Your task to perform on an android device: toggle improve location accuracy Image 0: 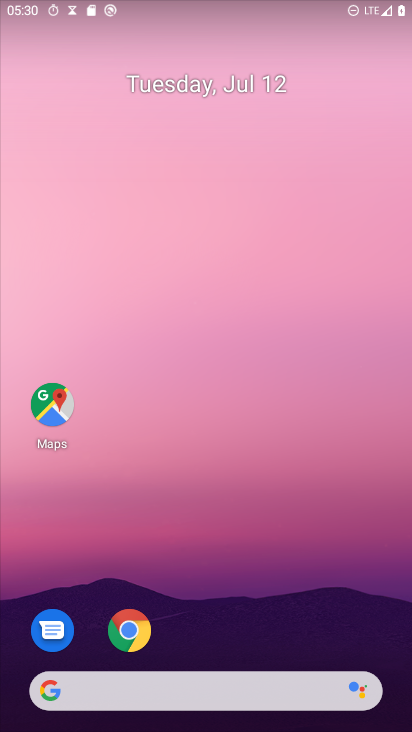
Step 0: drag from (305, 639) to (306, 52)
Your task to perform on an android device: toggle improve location accuracy Image 1: 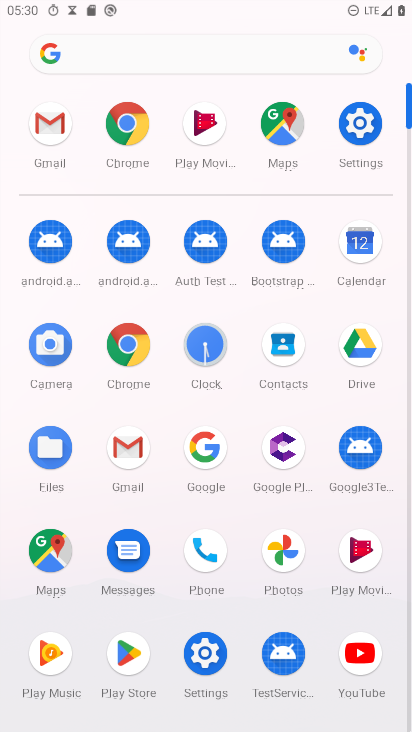
Step 1: click (374, 122)
Your task to perform on an android device: toggle improve location accuracy Image 2: 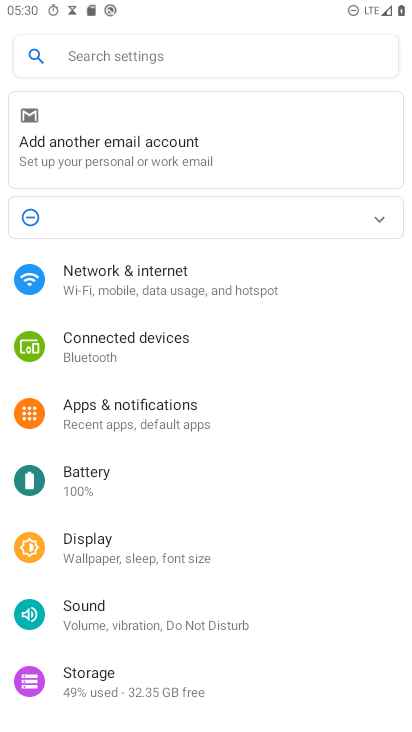
Step 2: drag from (145, 648) to (158, 336)
Your task to perform on an android device: toggle improve location accuracy Image 3: 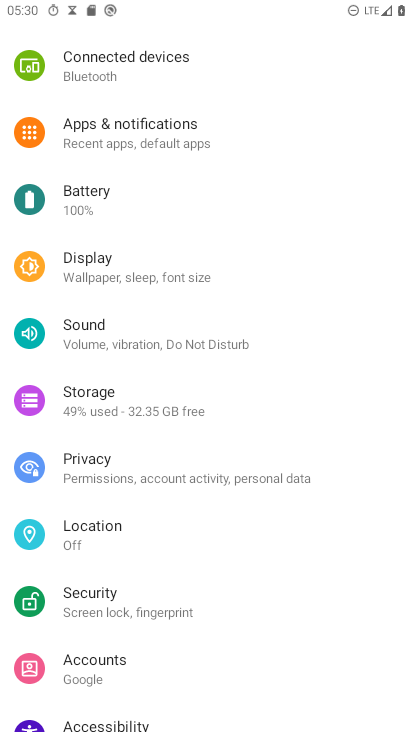
Step 3: click (146, 545)
Your task to perform on an android device: toggle improve location accuracy Image 4: 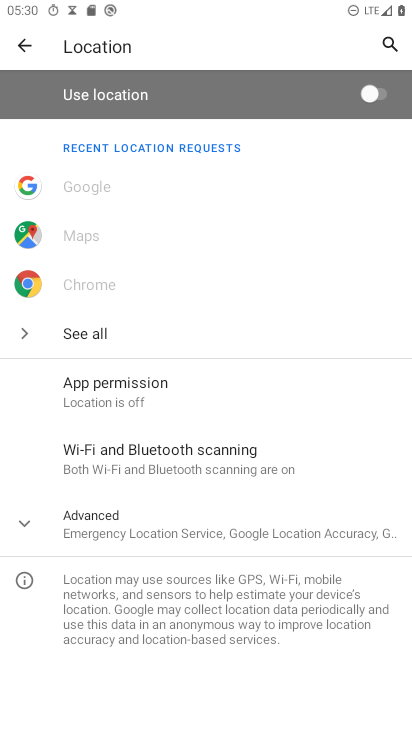
Step 4: click (184, 510)
Your task to perform on an android device: toggle improve location accuracy Image 5: 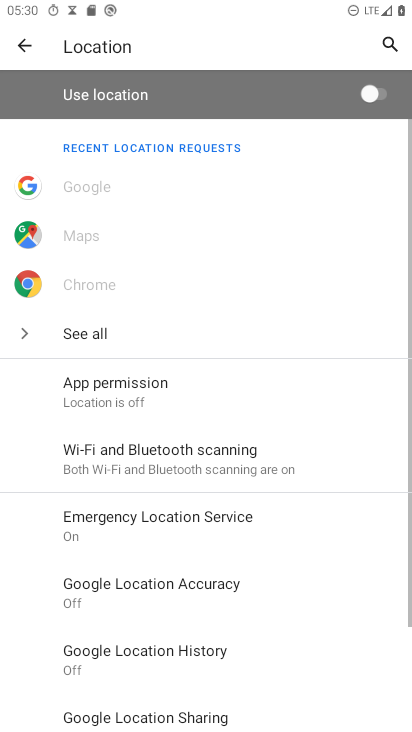
Step 5: click (221, 594)
Your task to perform on an android device: toggle improve location accuracy Image 6: 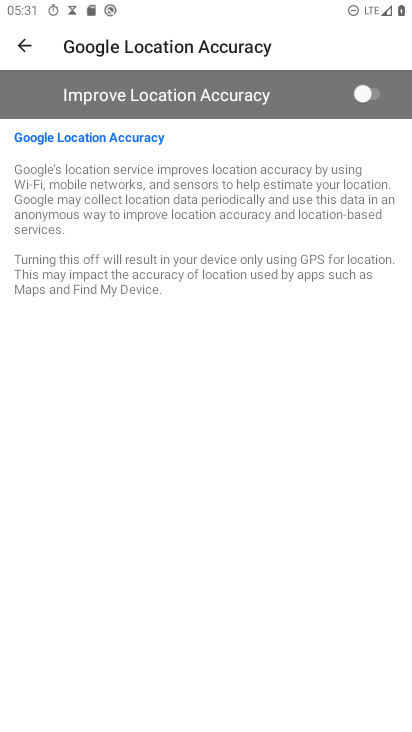
Step 6: click (380, 90)
Your task to perform on an android device: toggle improve location accuracy Image 7: 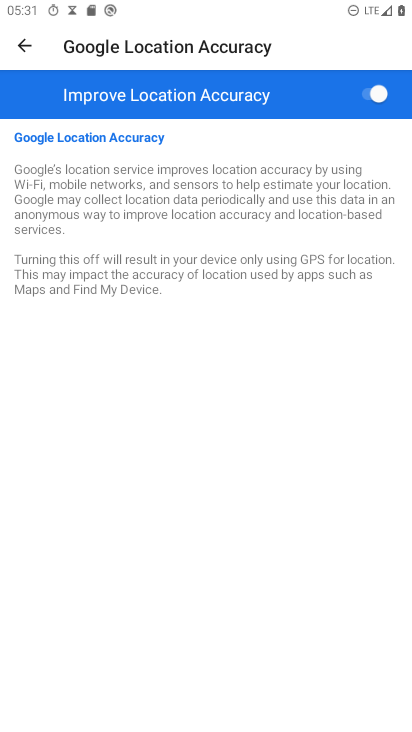
Step 7: task complete